Your task to perform on an android device: set an alarm Image 0: 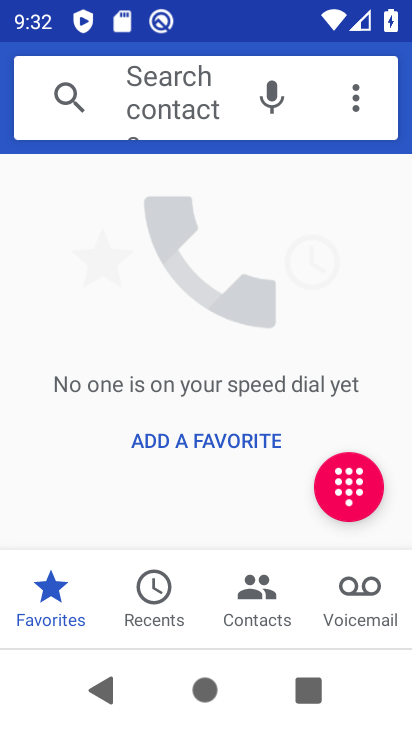
Step 0: press home button
Your task to perform on an android device: set an alarm Image 1: 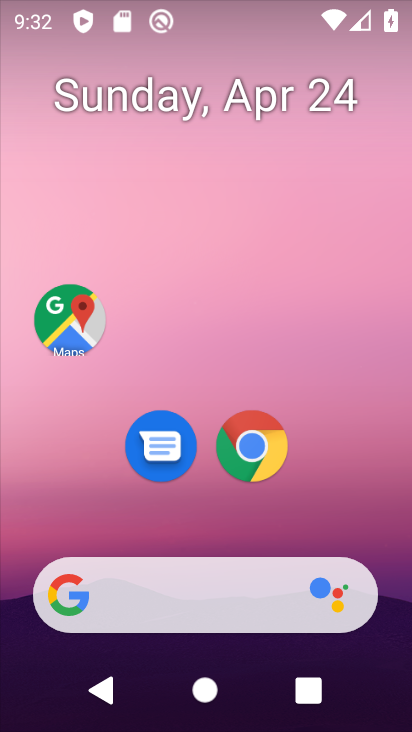
Step 1: drag from (396, 520) to (341, 131)
Your task to perform on an android device: set an alarm Image 2: 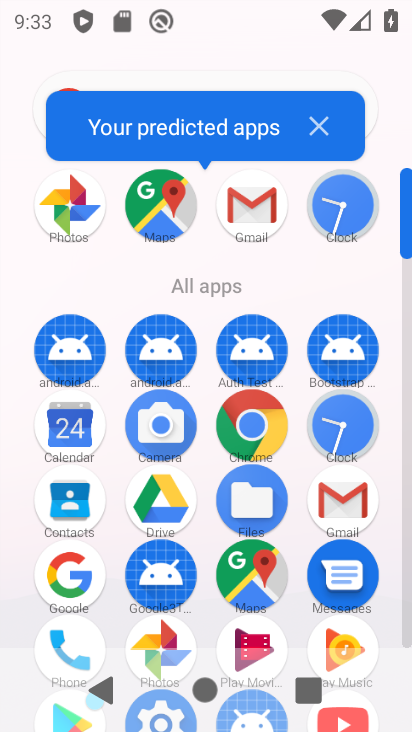
Step 2: click (344, 208)
Your task to perform on an android device: set an alarm Image 3: 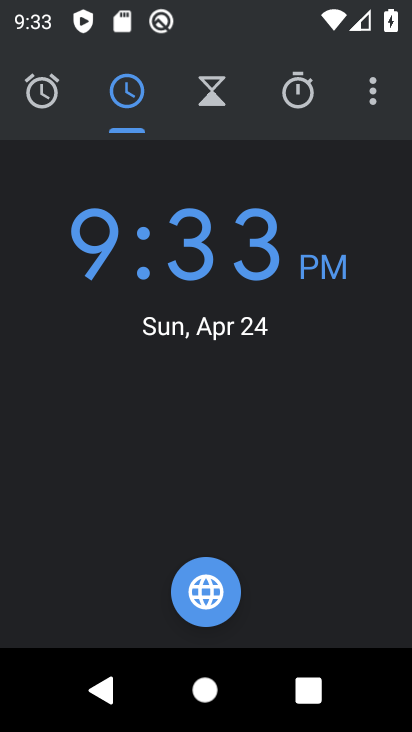
Step 3: click (53, 111)
Your task to perform on an android device: set an alarm Image 4: 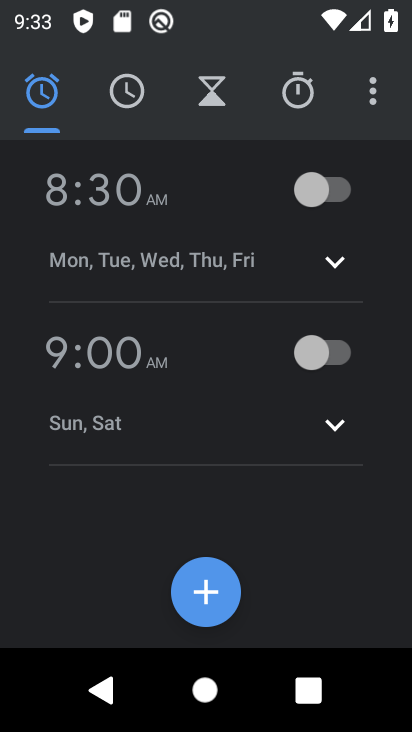
Step 4: click (225, 596)
Your task to perform on an android device: set an alarm Image 5: 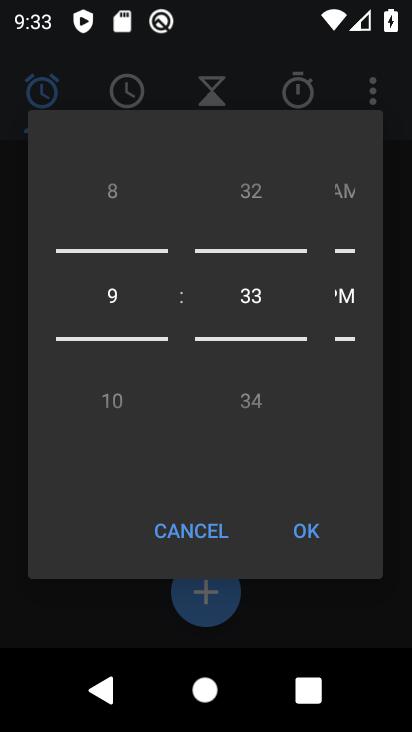
Step 5: click (312, 537)
Your task to perform on an android device: set an alarm Image 6: 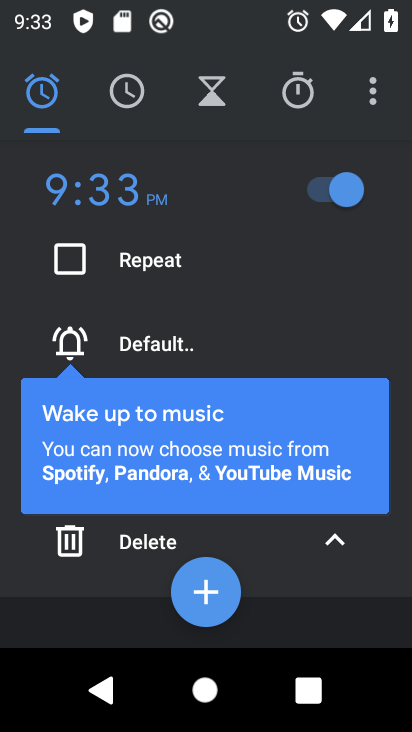
Step 6: task complete